Your task to perform on an android device: add a contact in the contacts app Image 0: 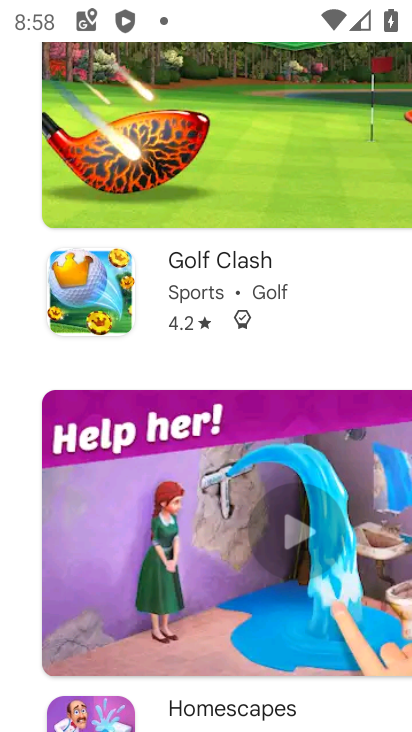
Step 0: press home button
Your task to perform on an android device: add a contact in the contacts app Image 1: 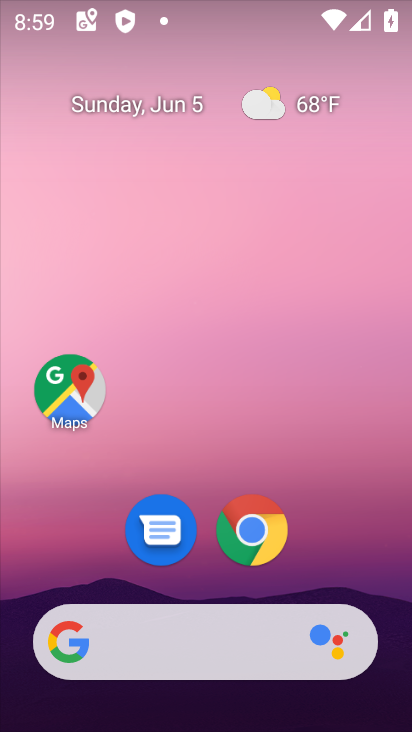
Step 1: drag from (385, 636) to (369, 69)
Your task to perform on an android device: add a contact in the contacts app Image 2: 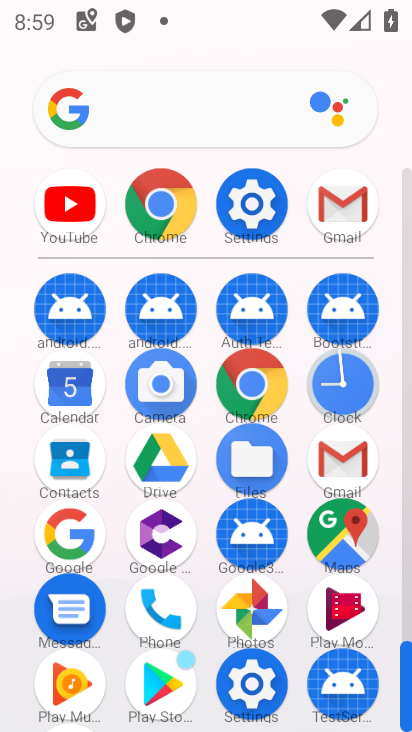
Step 2: click (69, 464)
Your task to perform on an android device: add a contact in the contacts app Image 3: 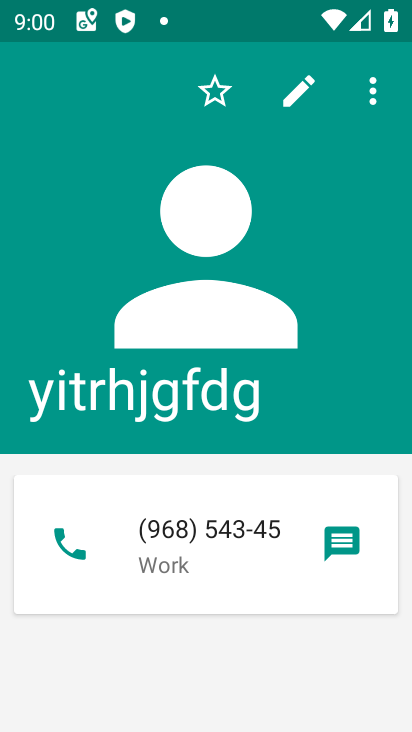
Step 3: press back button
Your task to perform on an android device: add a contact in the contacts app Image 4: 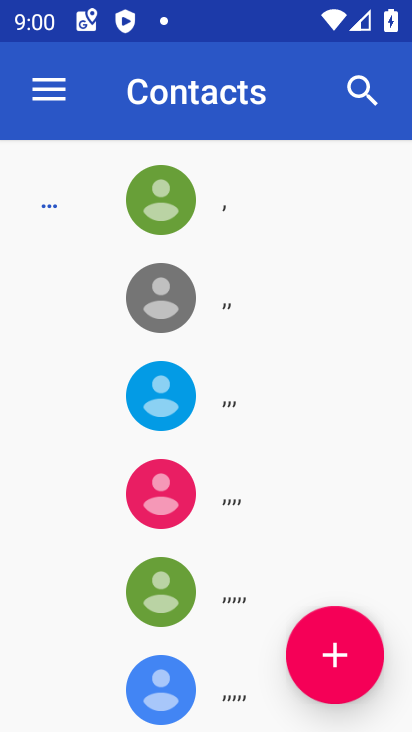
Step 4: click (330, 655)
Your task to perform on an android device: add a contact in the contacts app Image 5: 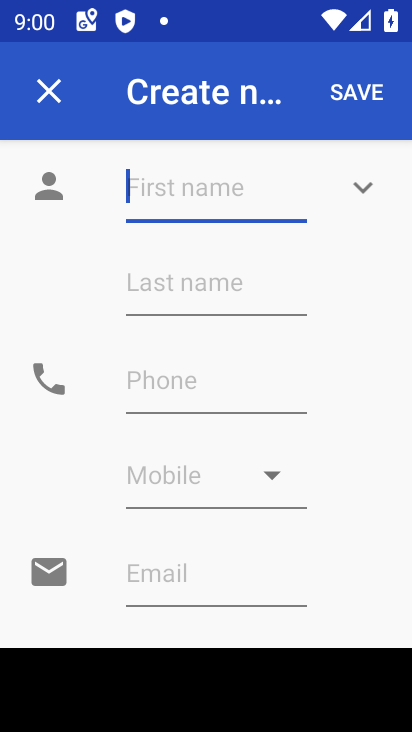
Step 5: type "uyrefghfgdb"
Your task to perform on an android device: add a contact in the contacts app Image 6: 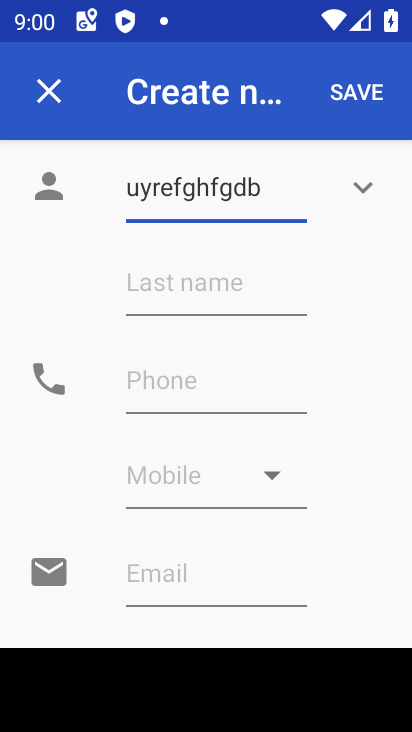
Step 6: click (200, 386)
Your task to perform on an android device: add a contact in the contacts app Image 7: 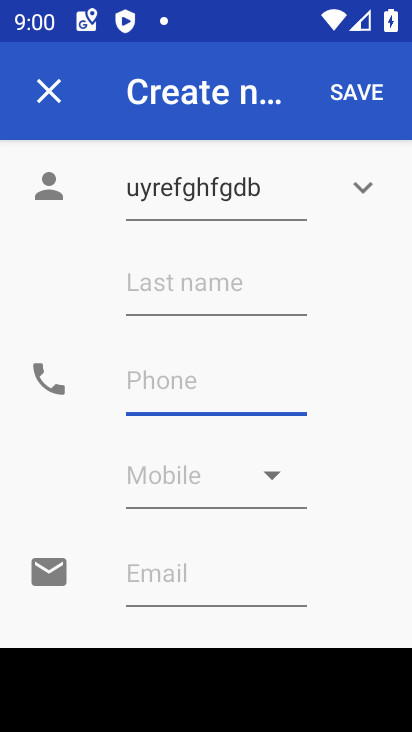
Step 7: type "6523789876"
Your task to perform on an android device: add a contact in the contacts app Image 8: 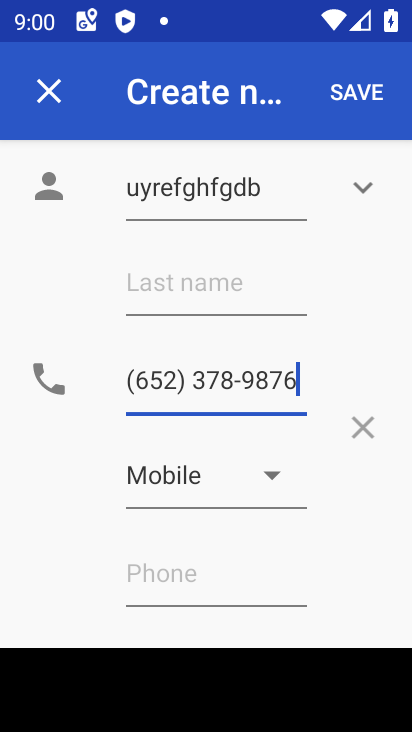
Step 8: click (276, 470)
Your task to perform on an android device: add a contact in the contacts app Image 9: 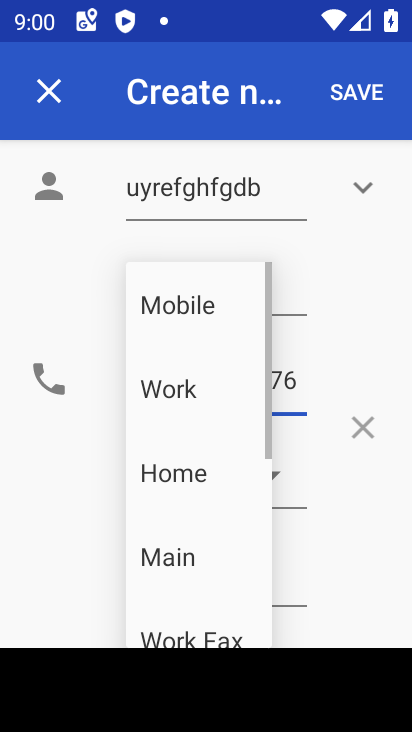
Step 9: click (187, 385)
Your task to perform on an android device: add a contact in the contacts app Image 10: 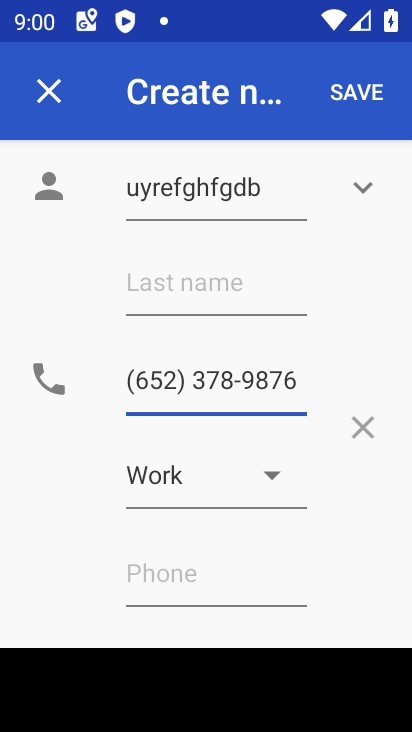
Step 10: click (372, 98)
Your task to perform on an android device: add a contact in the contacts app Image 11: 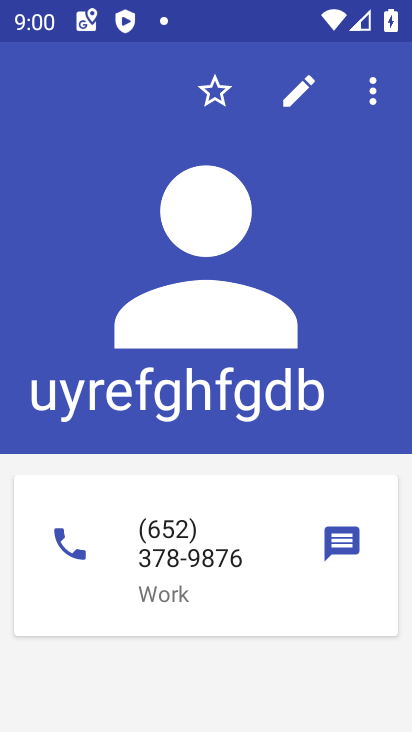
Step 11: task complete